Your task to perform on an android device: Go to network settings Image 0: 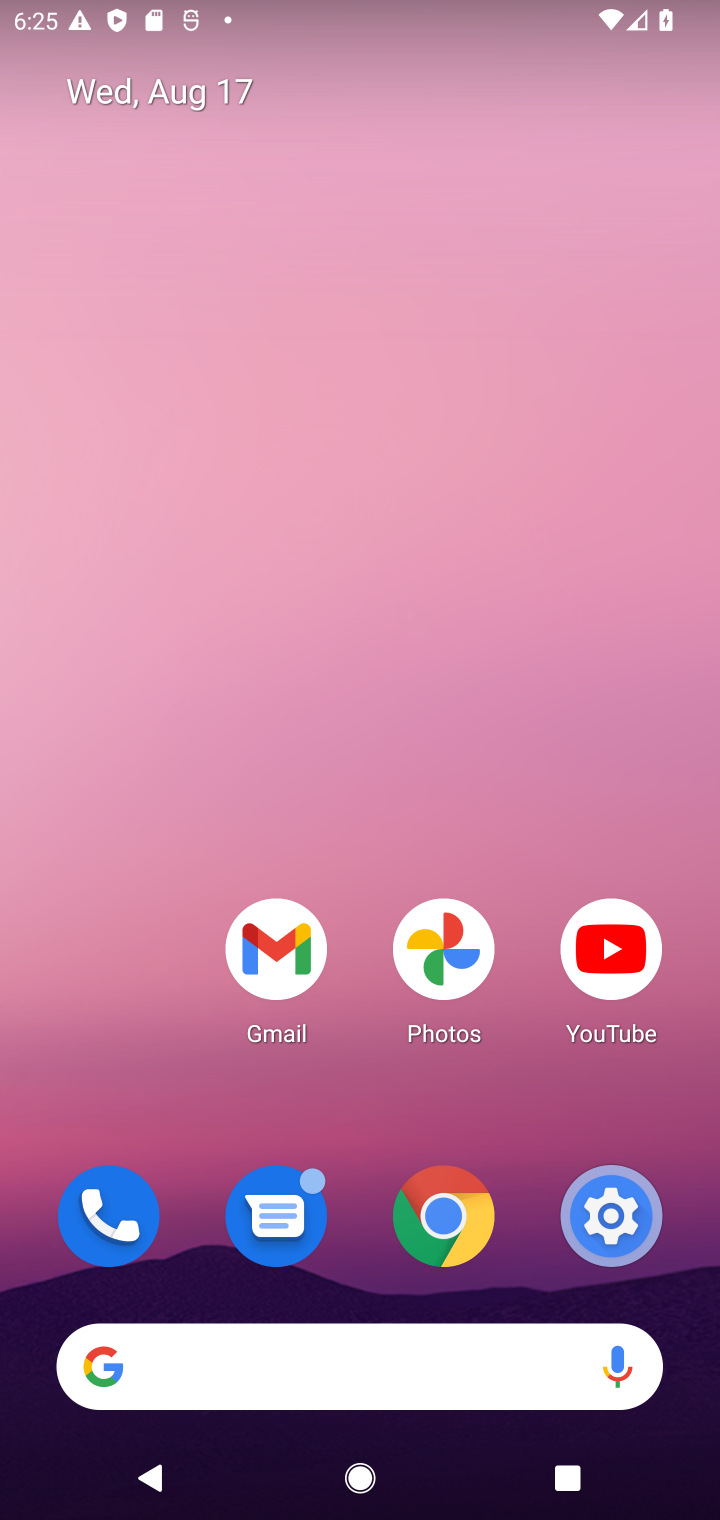
Step 0: drag from (539, 1084) to (368, 103)
Your task to perform on an android device: Go to network settings Image 1: 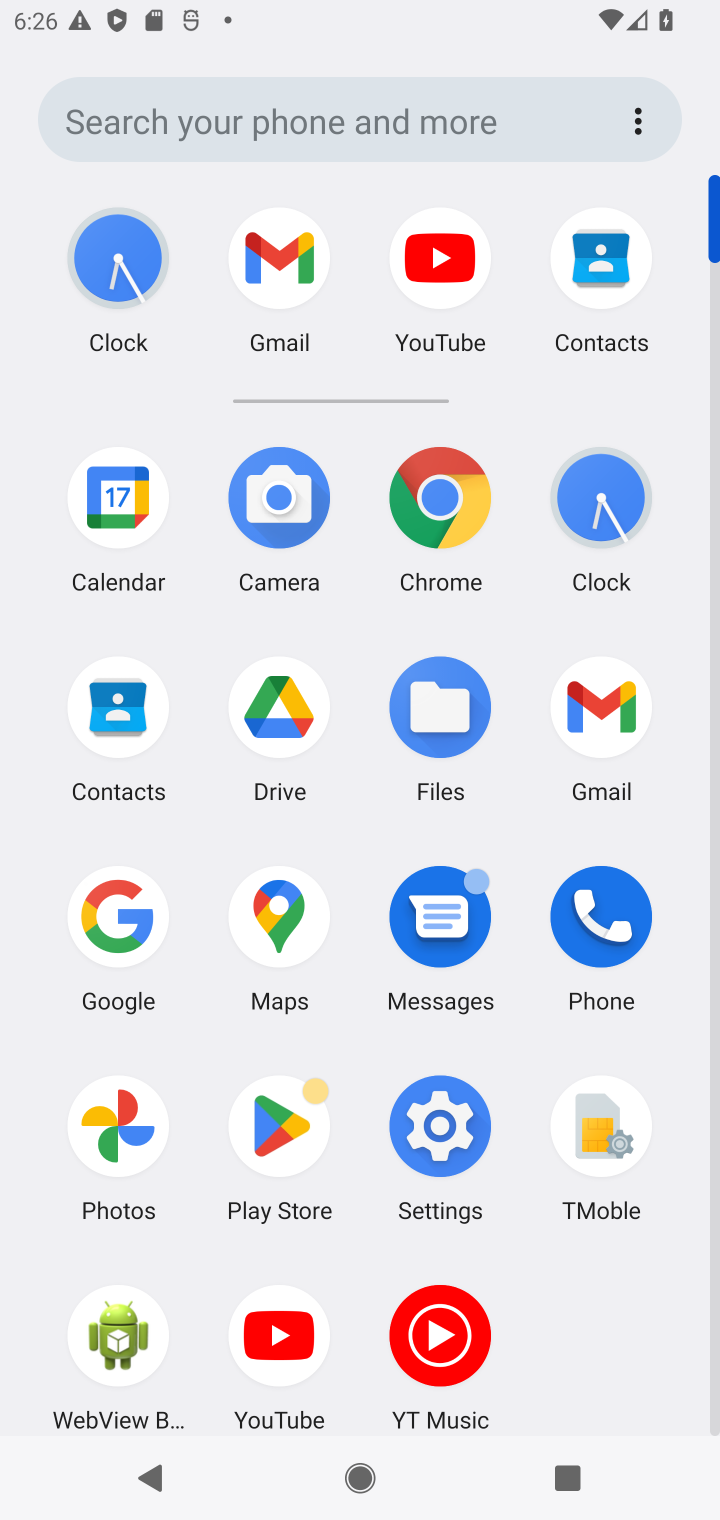
Step 1: click (443, 1129)
Your task to perform on an android device: Go to network settings Image 2: 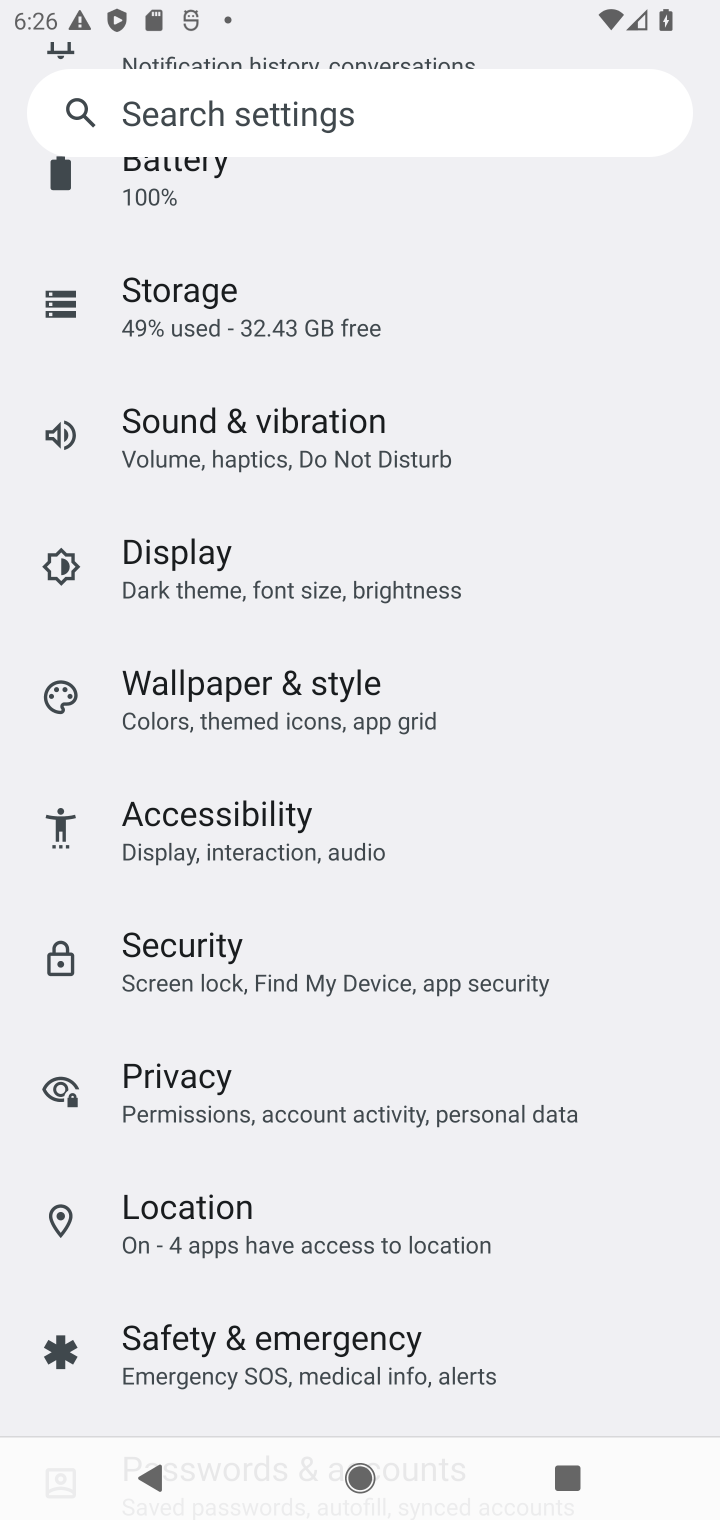
Step 2: drag from (289, 398) to (173, 1269)
Your task to perform on an android device: Go to network settings Image 3: 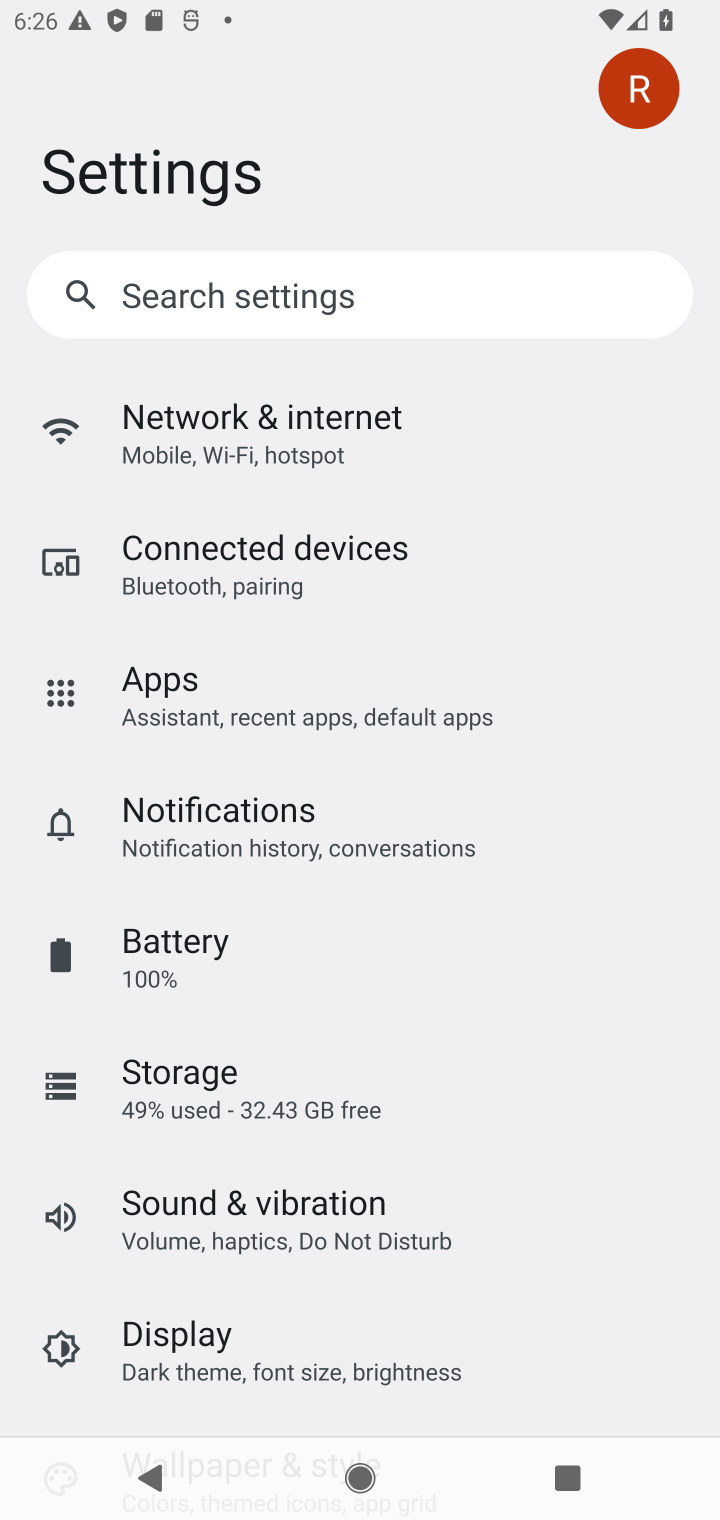
Step 3: click (196, 415)
Your task to perform on an android device: Go to network settings Image 4: 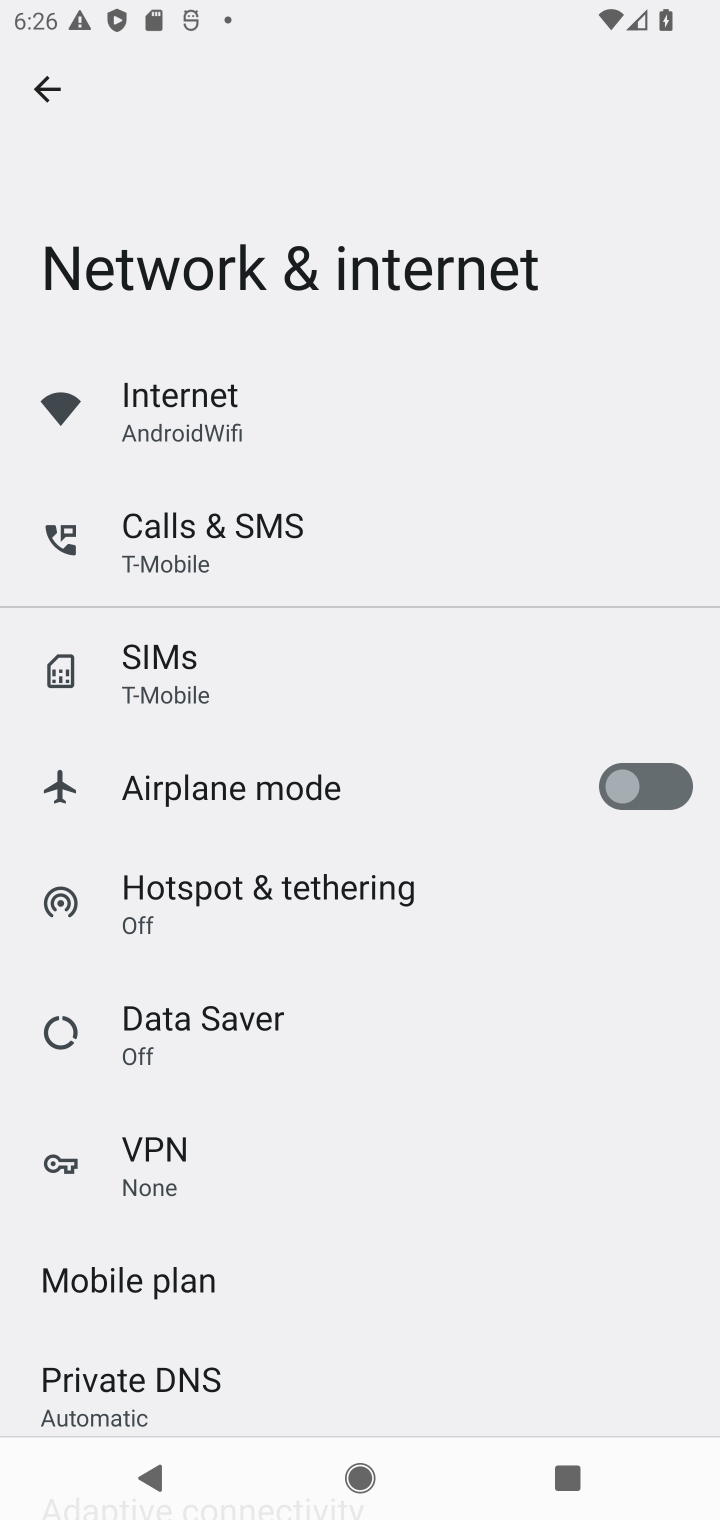
Step 4: task complete